Your task to perform on an android device: toggle improve location accuracy Image 0: 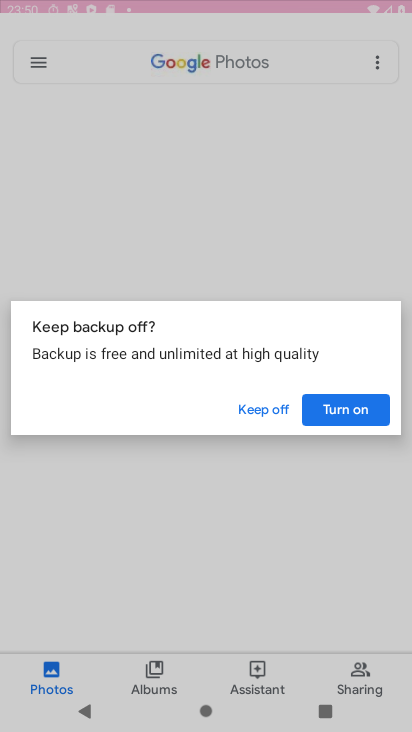
Step 0: drag from (187, 499) to (228, 228)
Your task to perform on an android device: toggle improve location accuracy Image 1: 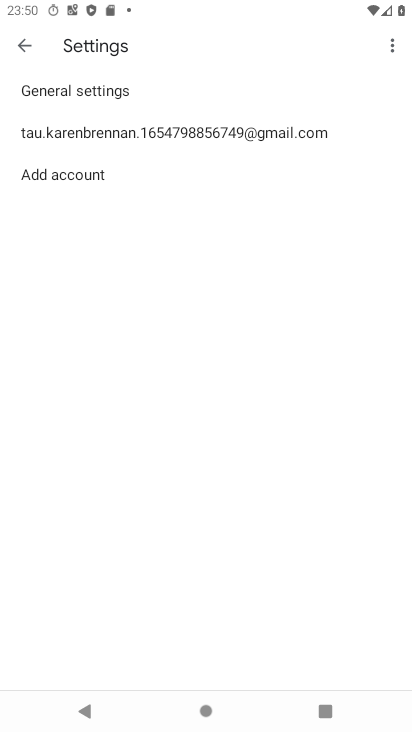
Step 1: drag from (199, 582) to (194, 126)
Your task to perform on an android device: toggle improve location accuracy Image 2: 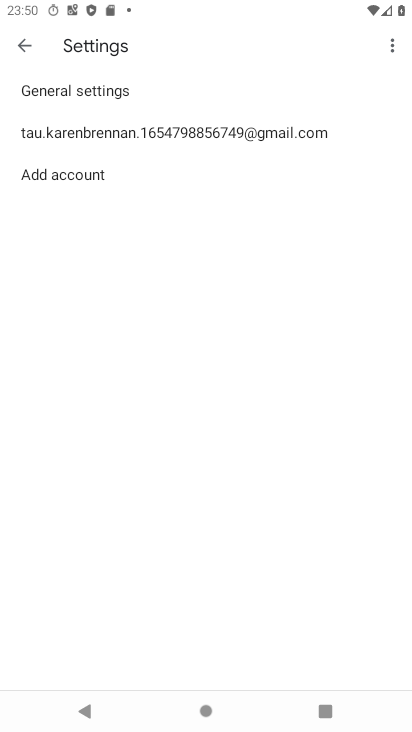
Step 2: drag from (176, 568) to (167, 120)
Your task to perform on an android device: toggle improve location accuracy Image 3: 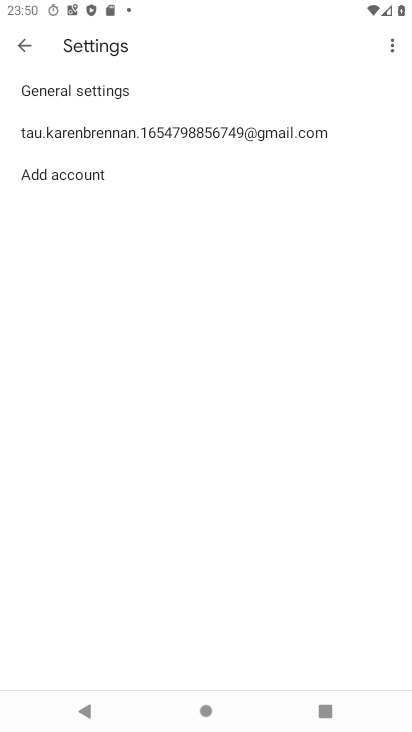
Step 3: drag from (121, 577) to (173, 10)
Your task to perform on an android device: toggle improve location accuracy Image 4: 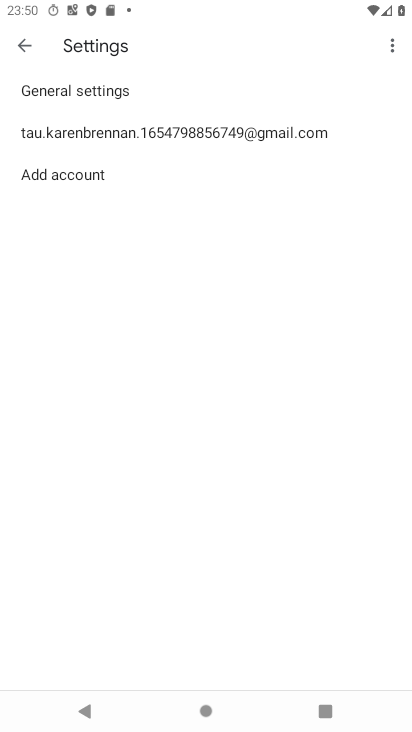
Step 4: drag from (120, 607) to (174, 22)
Your task to perform on an android device: toggle improve location accuracy Image 5: 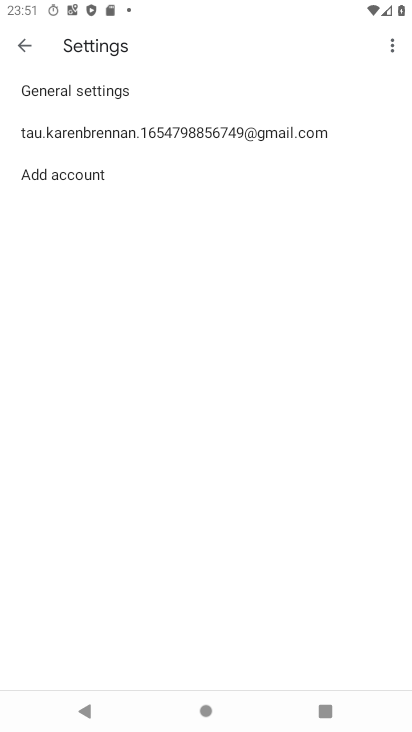
Step 5: drag from (177, 462) to (254, 225)
Your task to perform on an android device: toggle improve location accuracy Image 6: 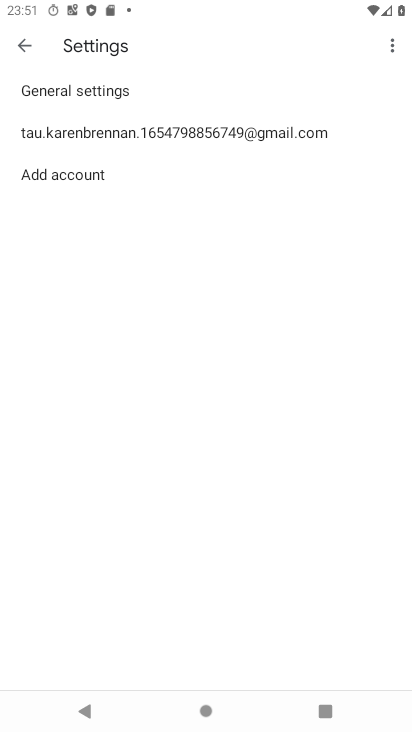
Step 6: drag from (186, 463) to (220, 0)
Your task to perform on an android device: toggle improve location accuracy Image 7: 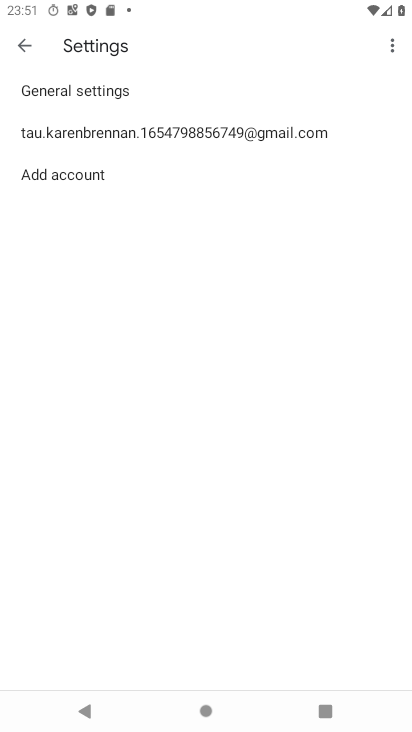
Step 7: drag from (137, 509) to (99, 321)
Your task to perform on an android device: toggle improve location accuracy Image 8: 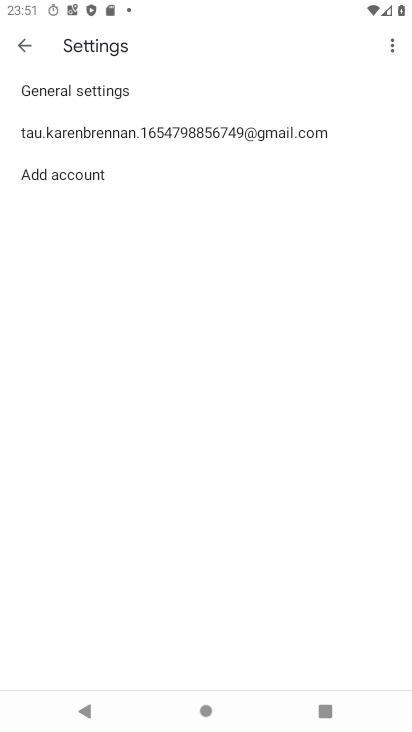
Step 8: press home button
Your task to perform on an android device: toggle improve location accuracy Image 9: 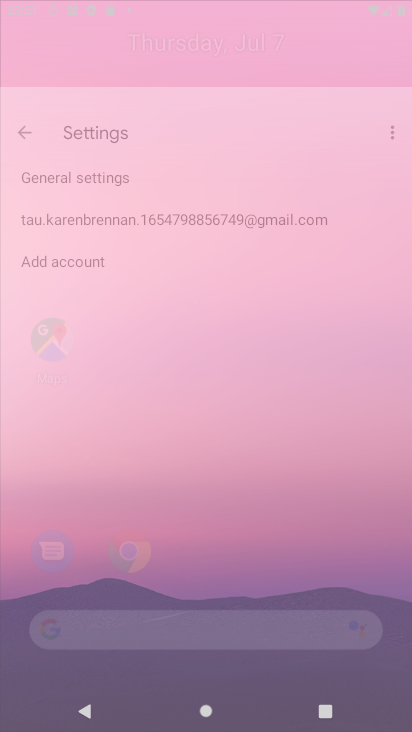
Step 9: drag from (221, 338) to (267, 50)
Your task to perform on an android device: toggle improve location accuracy Image 10: 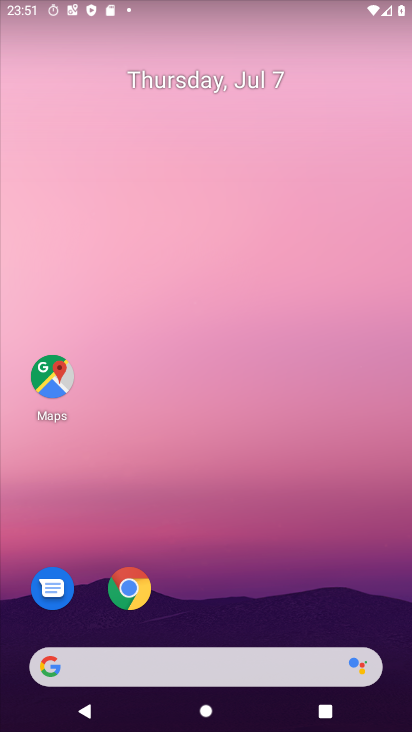
Step 10: drag from (219, 554) to (227, 134)
Your task to perform on an android device: toggle improve location accuracy Image 11: 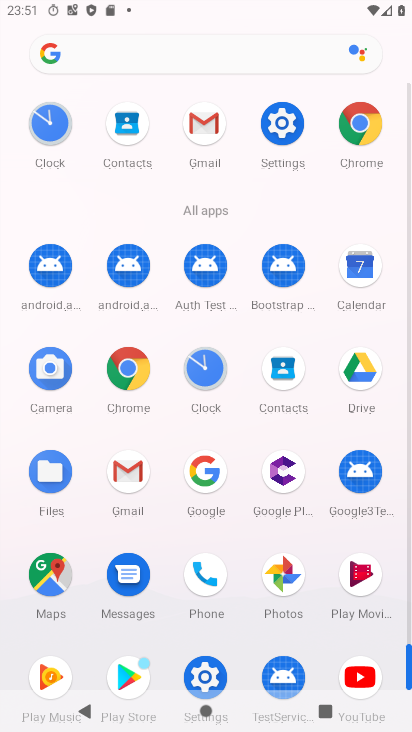
Step 11: click (274, 132)
Your task to perform on an android device: toggle improve location accuracy Image 12: 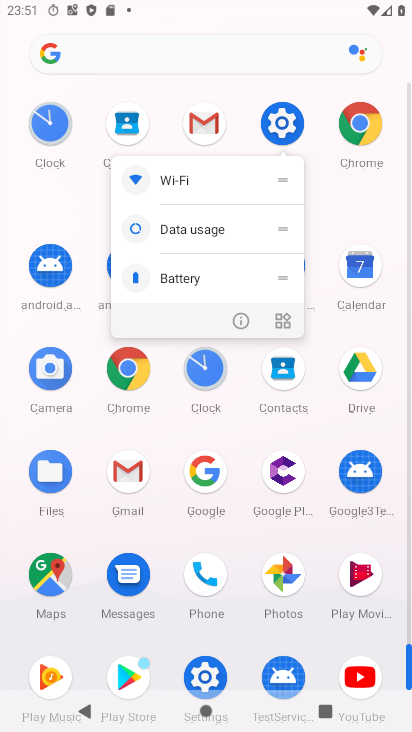
Step 12: click (245, 324)
Your task to perform on an android device: toggle improve location accuracy Image 13: 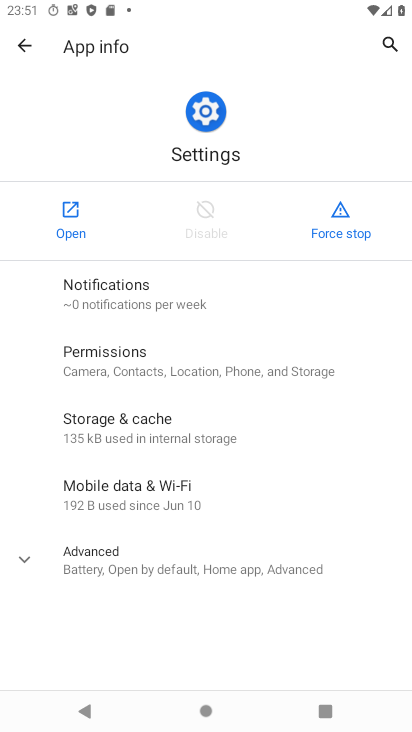
Step 13: drag from (154, 559) to (184, 162)
Your task to perform on an android device: toggle improve location accuracy Image 14: 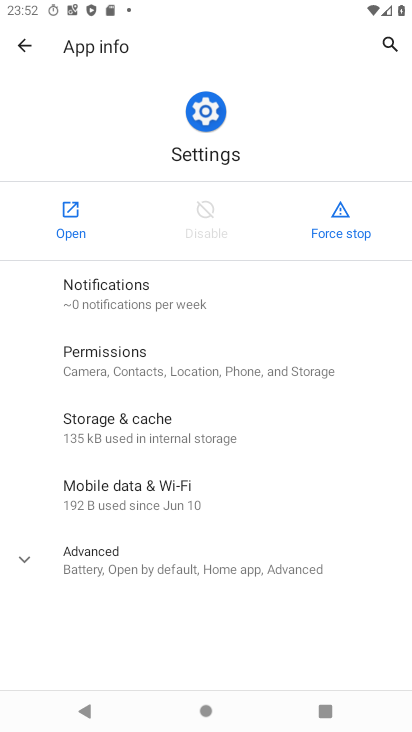
Step 14: click (59, 222)
Your task to perform on an android device: toggle improve location accuracy Image 15: 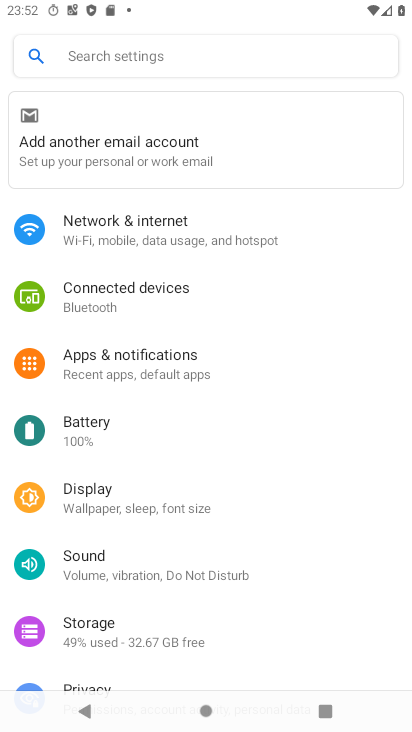
Step 15: drag from (210, 418) to (169, 173)
Your task to perform on an android device: toggle improve location accuracy Image 16: 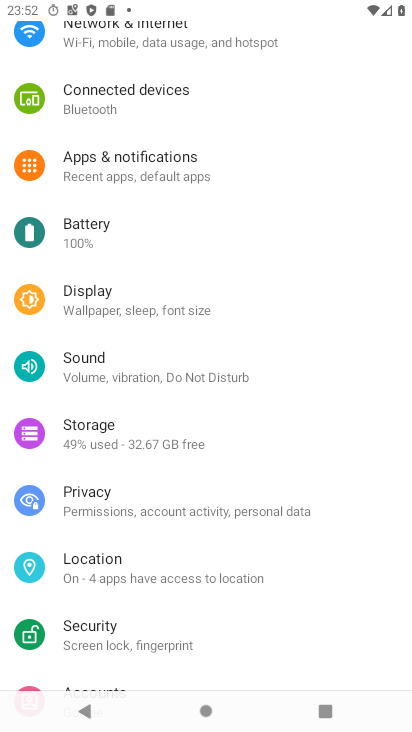
Step 16: drag from (162, 557) to (160, 339)
Your task to perform on an android device: toggle improve location accuracy Image 17: 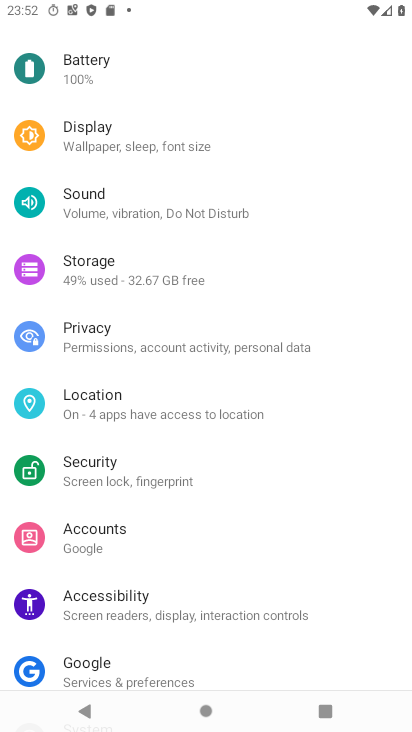
Step 17: drag from (197, 208) to (385, 382)
Your task to perform on an android device: toggle improve location accuracy Image 18: 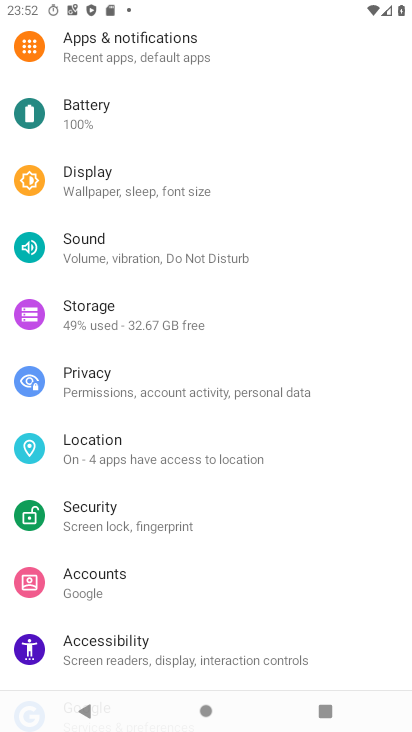
Step 18: drag from (164, 613) to (226, 324)
Your task to perform on an android device: toggle improve location accuracy Image 19: 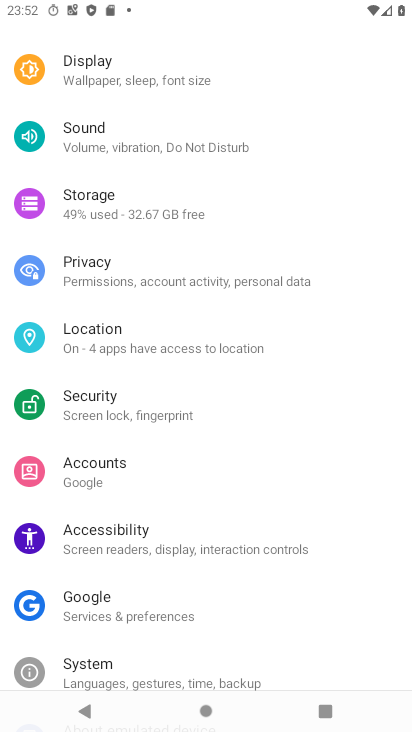
Step 19: drag from (208, 604) to (207, 424)
Your task to perform on an android device: toggle improve location accuracy Image 20: 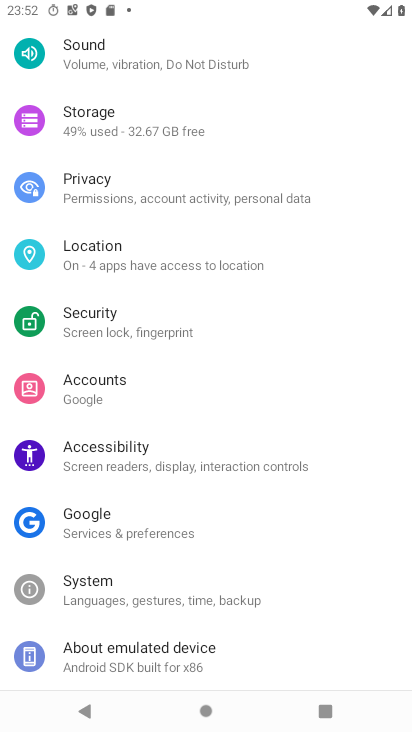
Step 20: click (124, 255)
Your task to perform on an android device: toggle improve location accuracy Image 21: 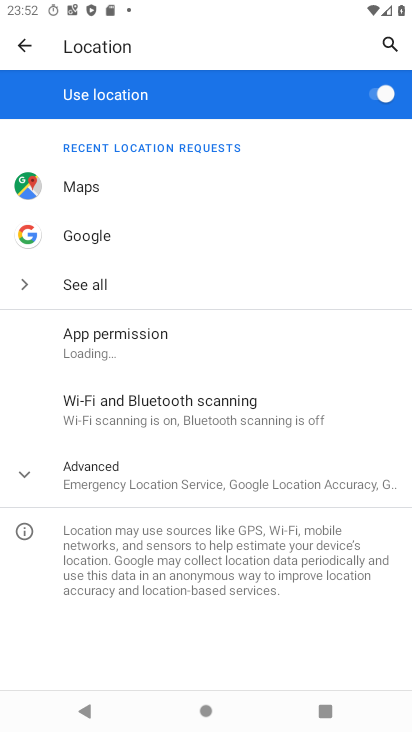
Step 21: click (127, 471)
Your task to perform on an android device: toggle improve location accuracy Image 22: 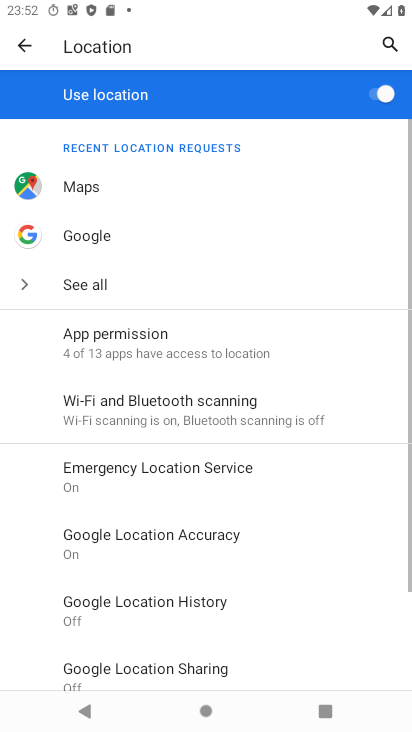
Step 22: click (185, 542)
Your task to perform on an android device: toggle improve location accuracy Image 23: 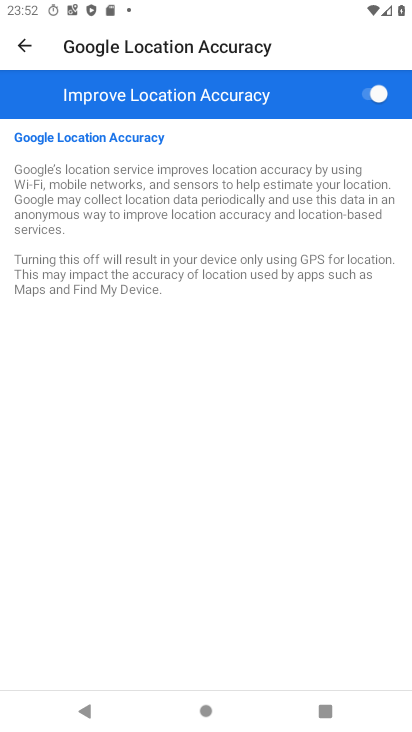
Step 23: click (378, 88)
Your task to perform on an android device: toggle improve location accuracy Image 24: 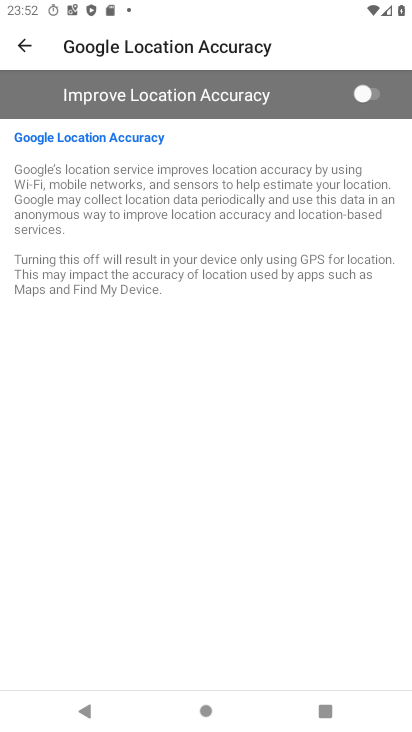
Step 24: task complete